Your task to perform on an android device: Do I have any events today? Image 0: 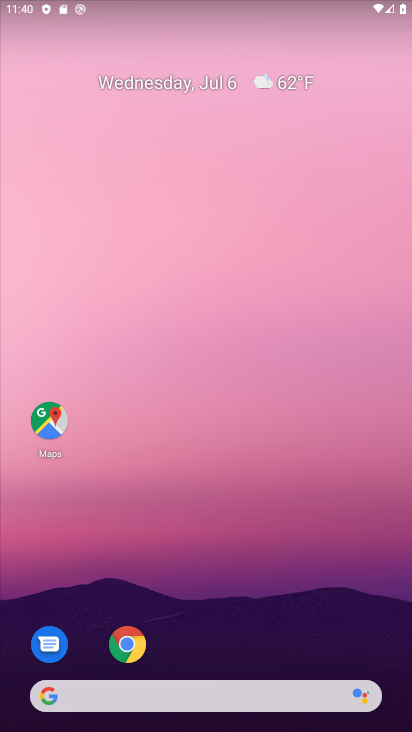
Step 0: drag from (245, 641) to (248, 78)
Your task to perform on an android device: Do I have any events today? Image 1: 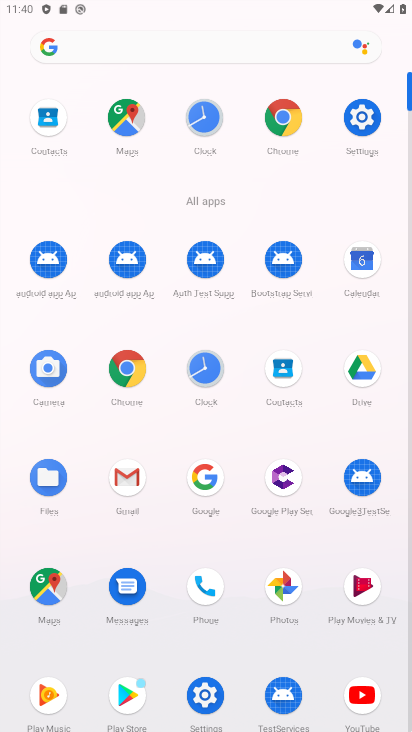
Step 1: click (361, 269)
Your task to perform on an android device: Do I have any events today? Image 2: 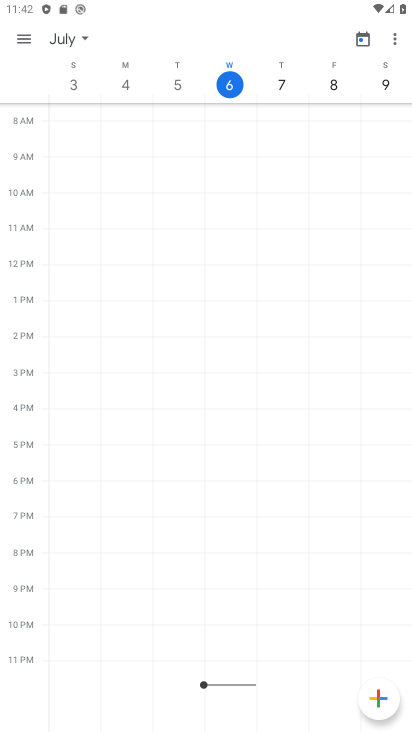
Step 2: task complete